Your task to perform on an android device: Open Wikipedia Image 0: 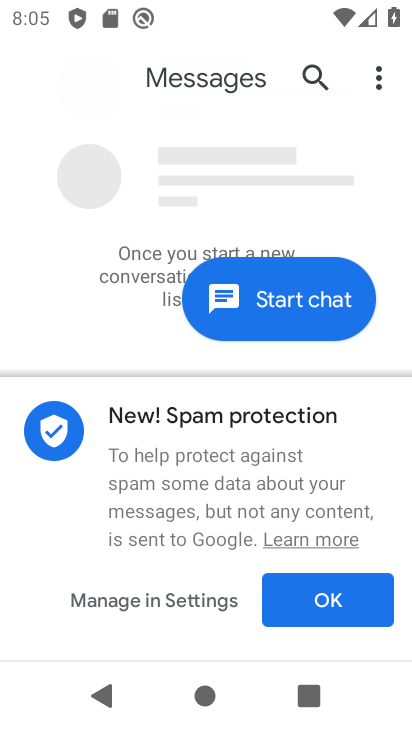
Step 0: press home button
Your task to perform on an android device: Open Wikipedia Image 1: 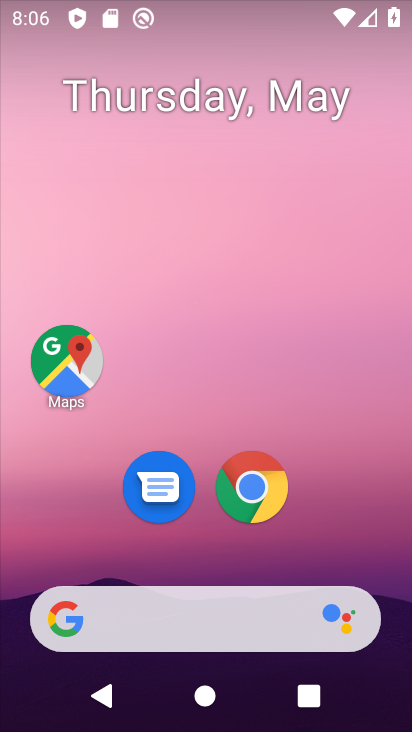
Step 1: click (261, 492)
Your task to perform on an android device: Open Wikipedia Image 2: 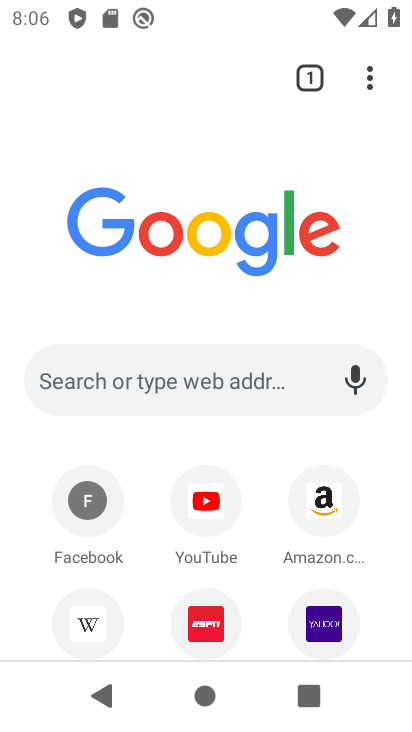
Step 2: click (66, 625)
Your task to perform on an android device: Open Wikipedia Image 3: 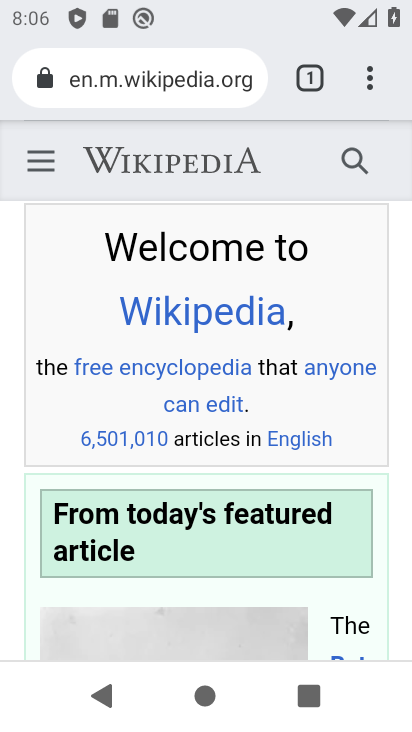
Step 3: task complete